Your task to perform on an android device: turn notification dots on Image 0: 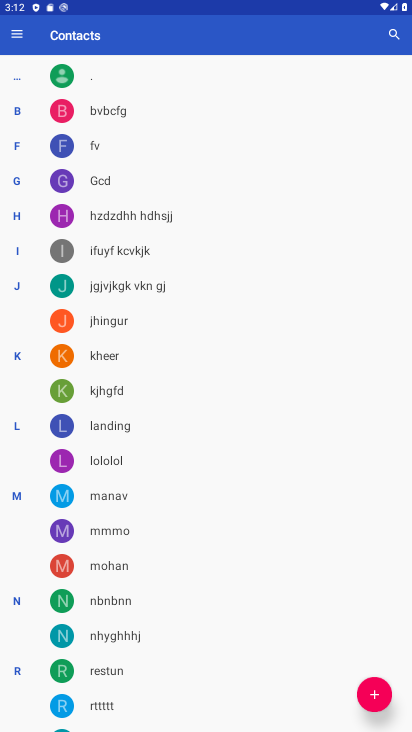
Step 0: press home button
Your task to perform on an android device: turn notification dots on Image 1: 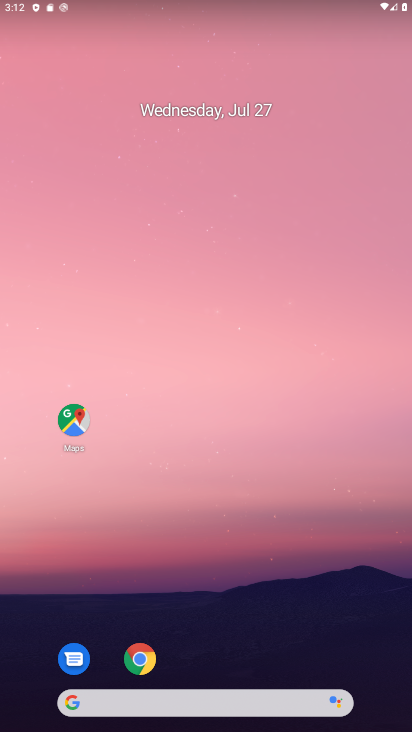
Step 1: drag from (242, 678) to (209, 9)
Your task to perform on an android device: turn notification dots on Image 2: 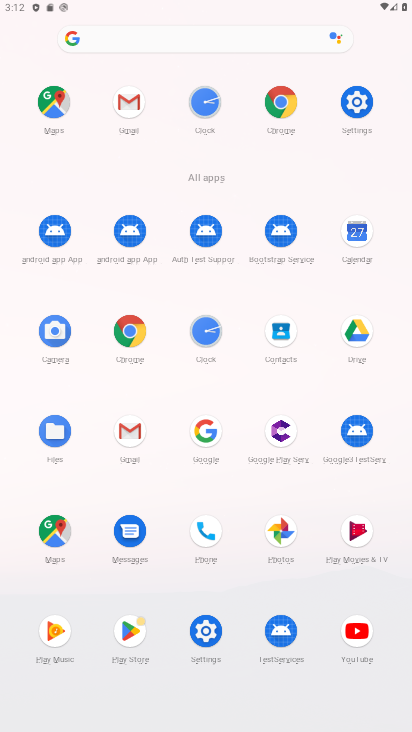
Step 2: click (210, 638)
Your task to perform on an android device: turn notification dots on Image 3: 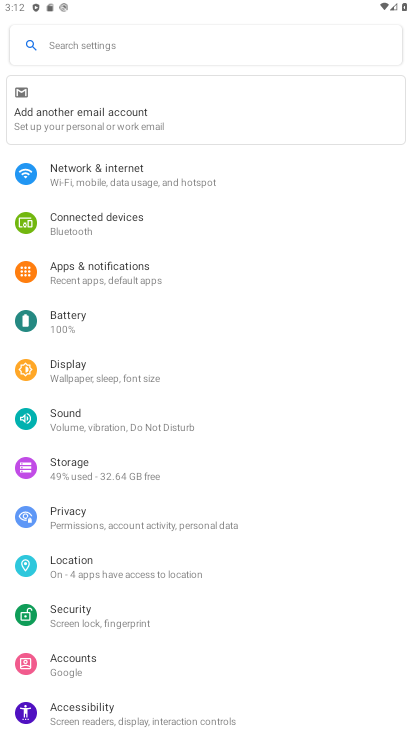
Step 3: click (74, 283)
Your task to perform on an android device: turn notification dots on Image 4: 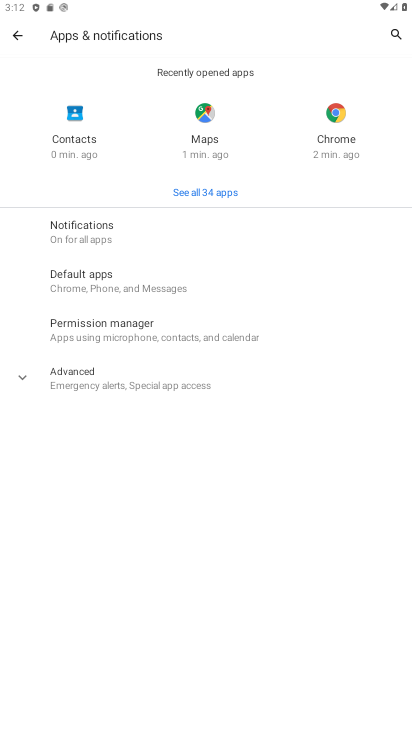
Step 4: click (72, 239)
Your task to perform on an android device: turn notification dots on Image 5: 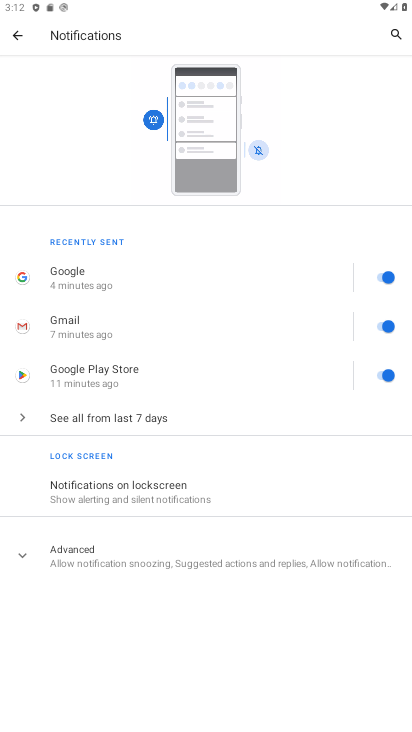
Step 5: click (23, 561)
Your task to perform on an android device: turn notification dots on Image 6: 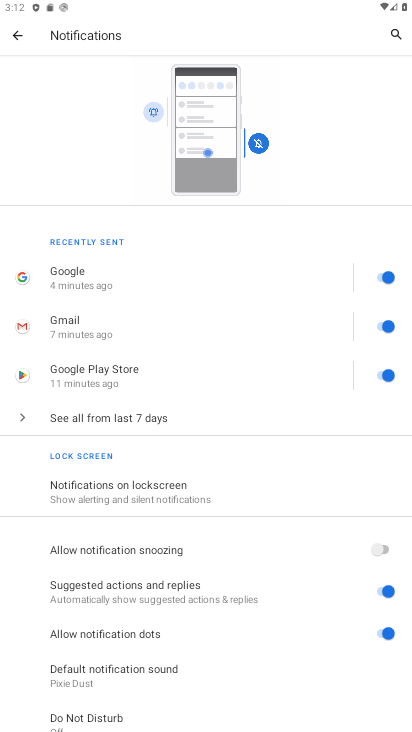
Step 6: task complete